Your task to perform on an android device: move a message to another label in the gmail app Image 0: 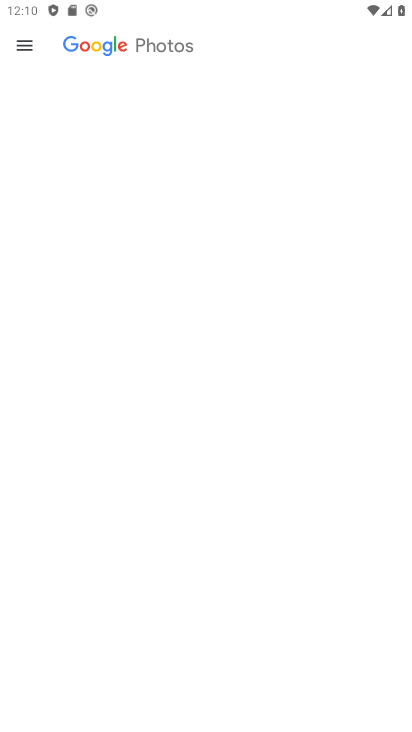
Step 0: press home button
Your task to perform on an android device: move a message to another label in the gmail app Image 1: 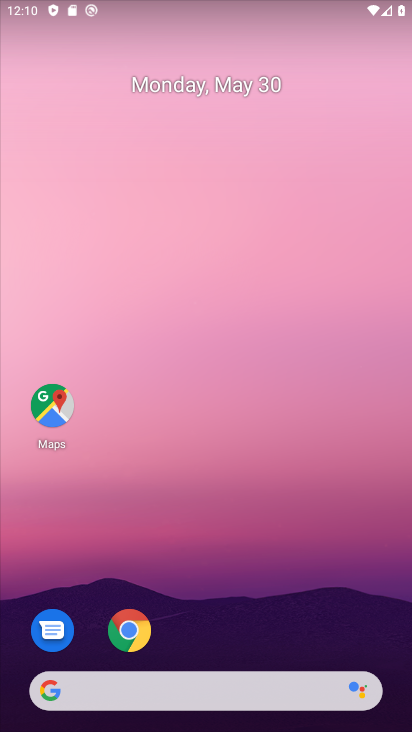
Step 1: drag from (174, 695) to (258, 196)
Your task to perform on an android device: move a message to another label in the gmail app Image 2: 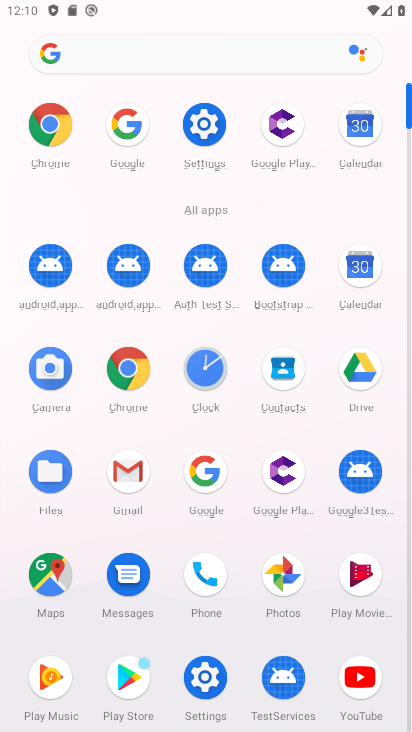
Step 2: click (129, 479)
Your task to perform on an android device: move a message to another label in the gmail app Image 3: 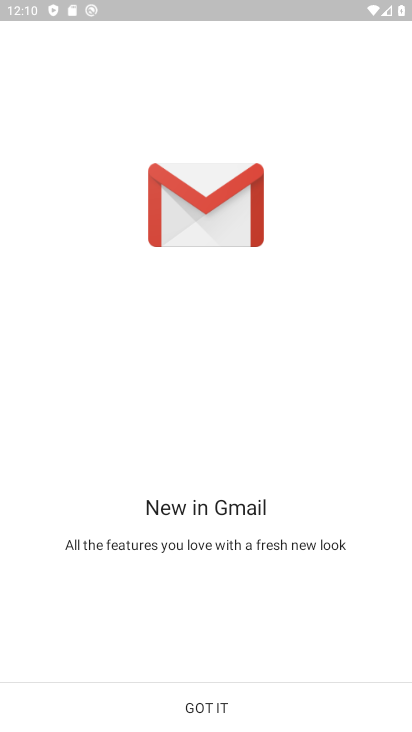
Step 3: click (208, 702)
Your task to perform on an android device: move a message to another label in the gmail app Image 4: 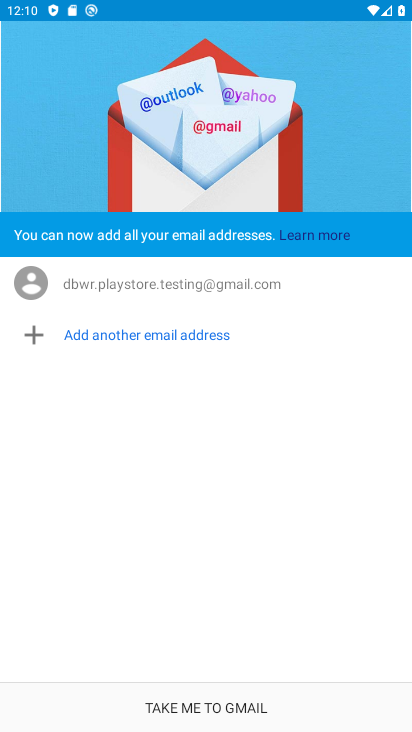
Step 4: click (199, 706)
Your task to perform on an android device: move a message to another label in the gmail app Image 5: 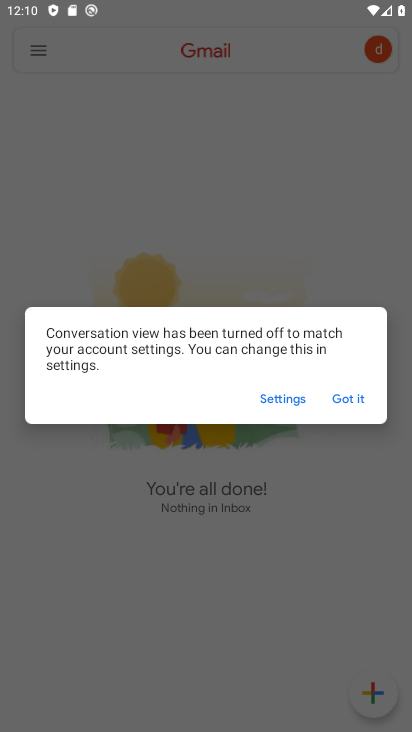
Step 5: click (347, 400)
Your task to perform on an android device: move a message to another label in the gmail app Image 6: 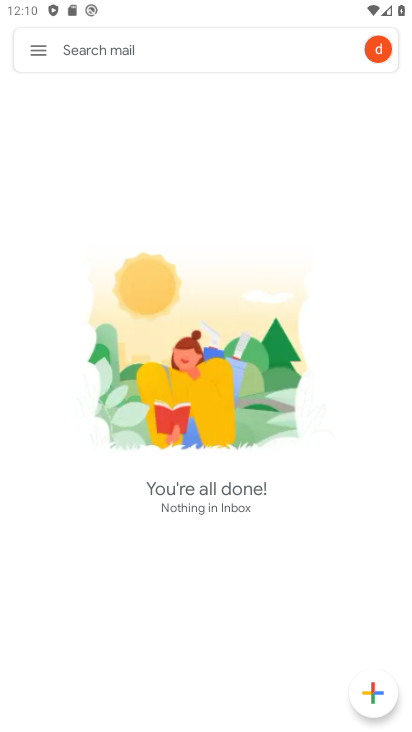
Step 6: task complete